Your task to perform on an android device: Show me popular games on the Play Store Image 0: 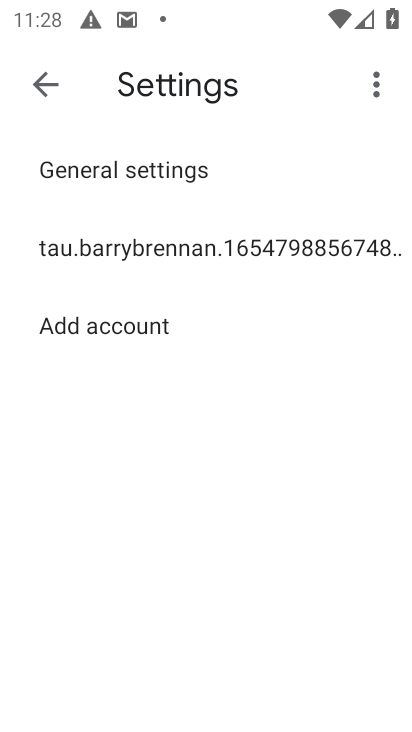
Step 0: press home button
Your task to perform on an android device: Show me popular games on the Play Store Image 1: 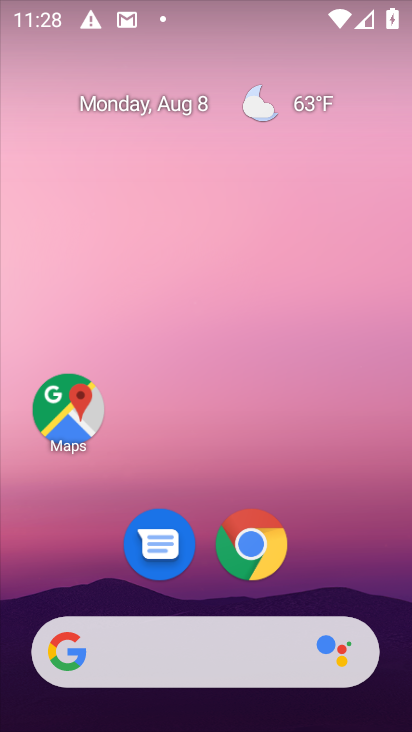
Step 1: drag from (219, 661) to (236, 71)
Your task to perform on an android device: Show me popular games on the Play Store Image 2: 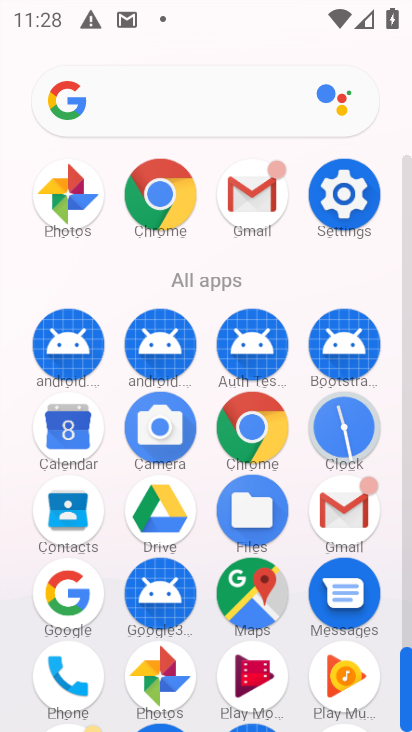
Step 2: drag from (289, 296) to (259, 55)
Your task to perform on an android device: Show me popular games on the Play Store Image 3: 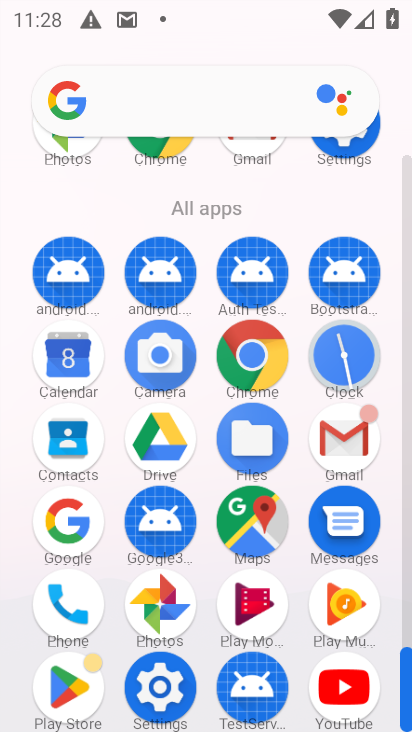
Step 3: click (77, 687)
Your task to perform on an android device: Show me popular games on the Play Store Image 4: 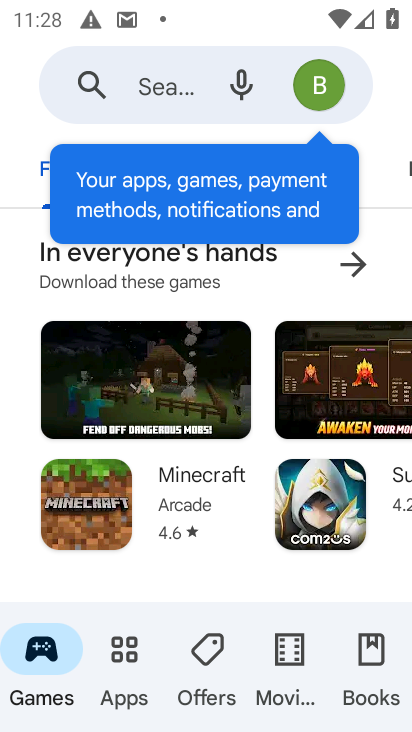
Step 4: click (196, 99)
Your task to perform on an android device: Show me popular games on the Play Store Image 5: 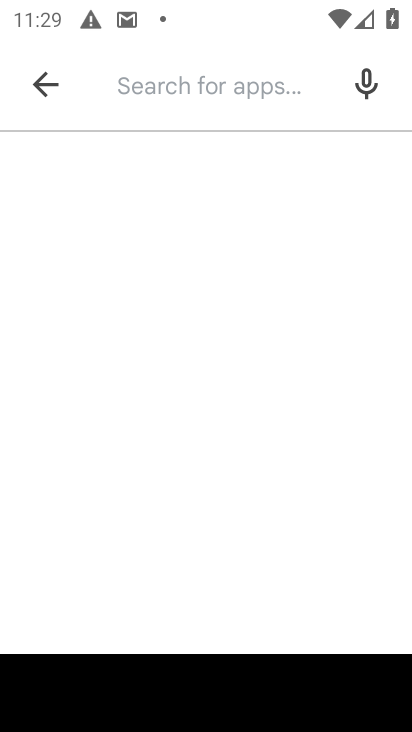
Step 5: type "popular games"
Your task to perform on an android device: Show me popular games on the Play Store Image 6: 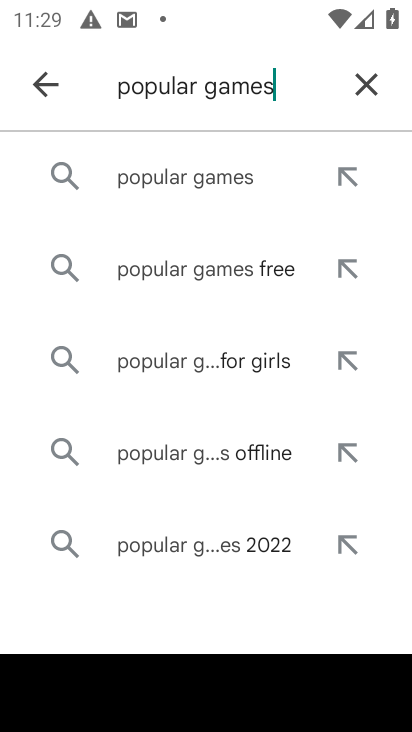
Step 6: click (224, 182)
Your task to perform on an android device: Show me popular games on the Play Store Image 7: 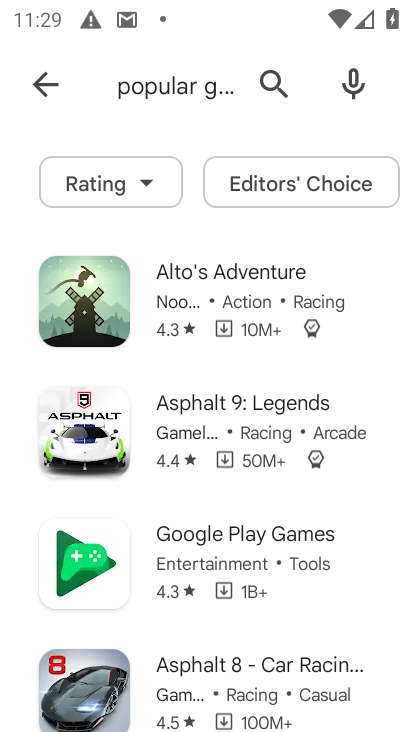
Step 7: task complete